Your task to perform on an android device: Is it going to rain today? Image 0: 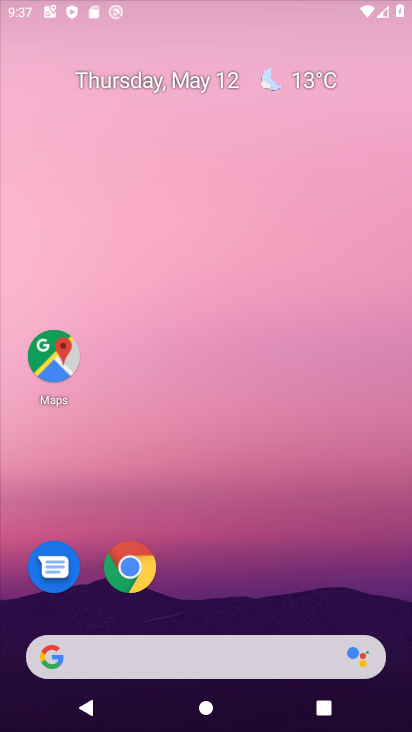
Step 0: drag from (244, 582) to (254, 67)
Your task to perform on an android device: Is it going to rain today? Image 1: 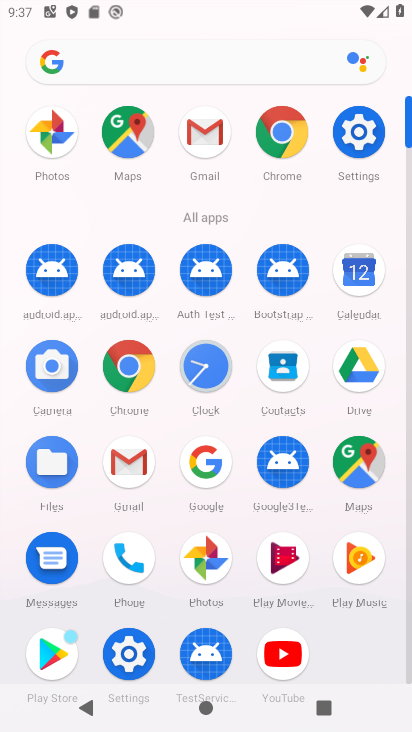
Step 1: click (214, 371)
Your task to perform on an android device: Is it going to rain today? Image 2: 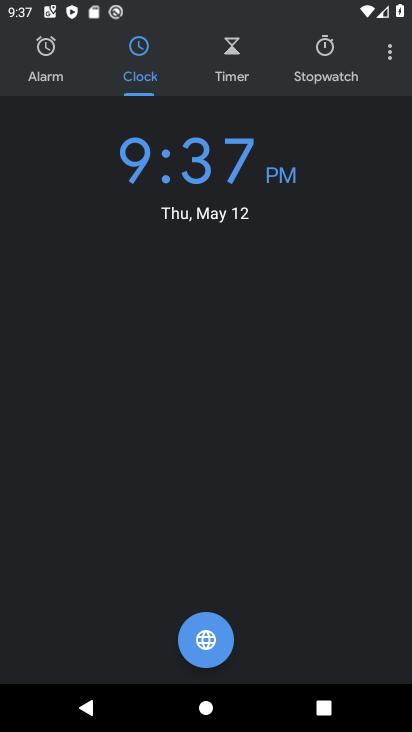
Step 2: press home button
Your task to perform on an android device: Is it going to rain today? Image 3: 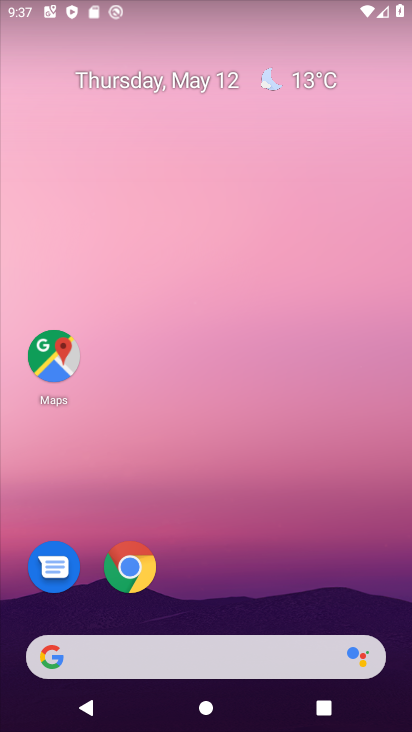
Step 3: click (179, 659)
Your task to perform on an android device: Is it going to rain today? Image 4: 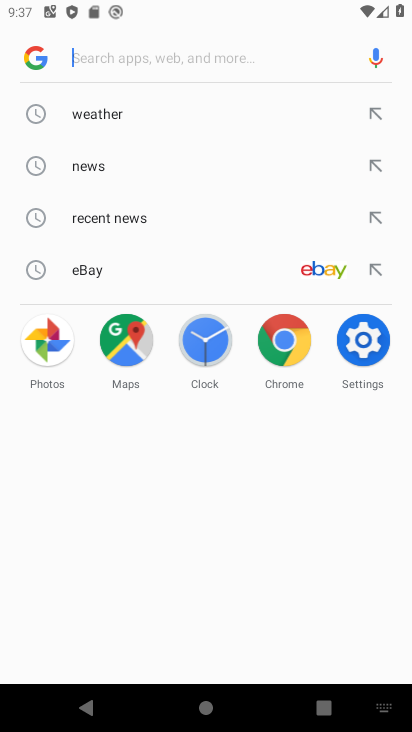
Step 4: type "is it going to rain today"
Your task to perform on an android device: Is it going to rain today? Image 5: 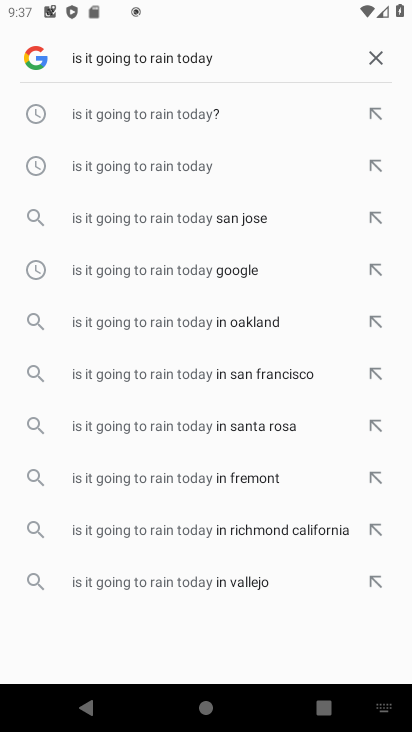
Step 5: click (183, 119)
Your task to perform on an android device: Is it going to rain today? Image 6: 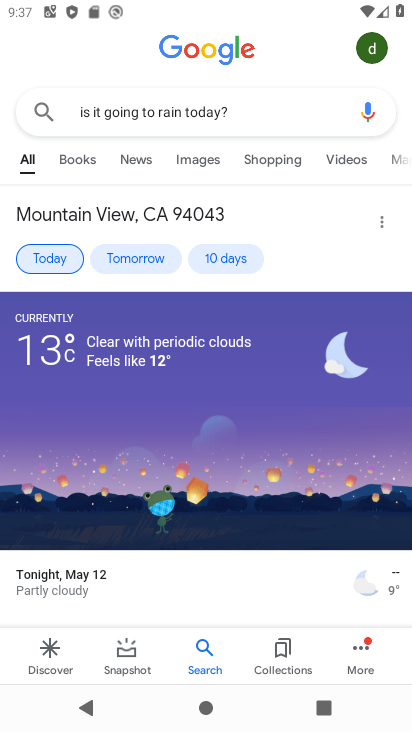
Step 6: task complete